Your task to perform on an android device: Open Google Maps and go to "Timeline" Image 0: 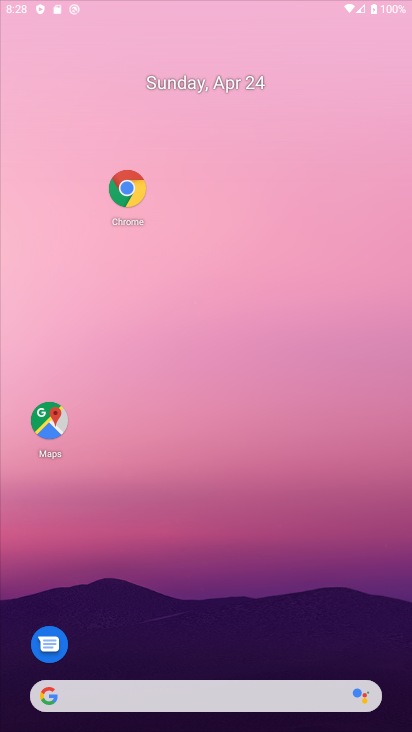
Step 0: click (198, 159)
Your task to perform on an android device: Open Google Maps and go to "Timeline" Image 1: 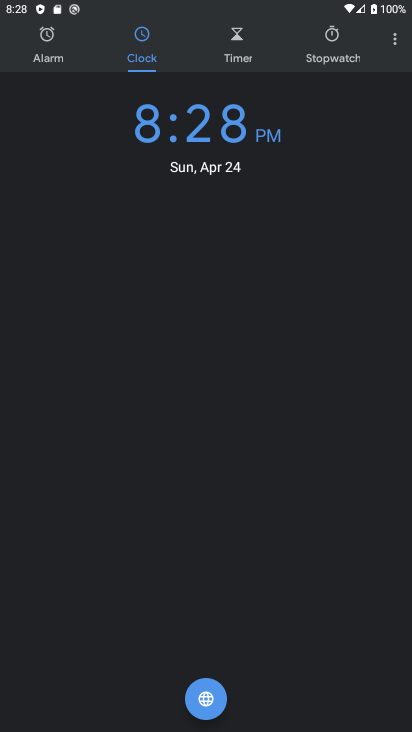
Step 1: press home button
Your task to perform on an android device: Open Google Maps and go to "Timeline" Image 2: 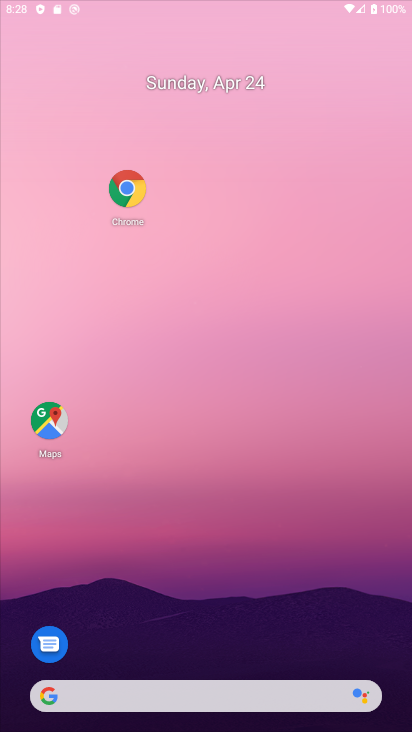
Step 2: drag from (227, 614) to (269, 91)
Your task to perform on an android device: Open Google Maps and go to "Timeline" Image 3: 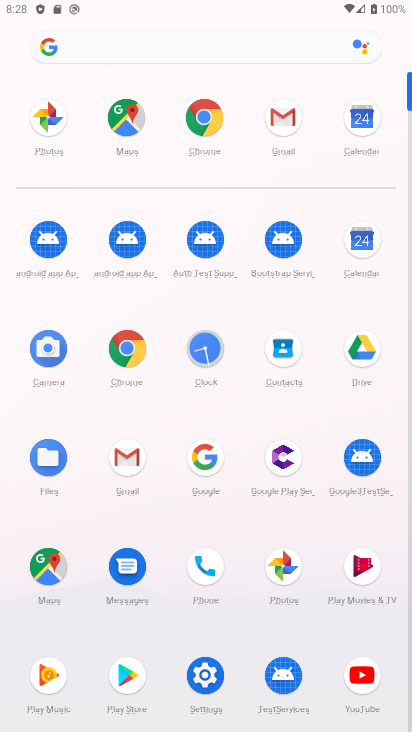
Step 3: click (48, 561)
Your task to perform on an android device: Open Google Maps and go to "Timeline" Image 4: 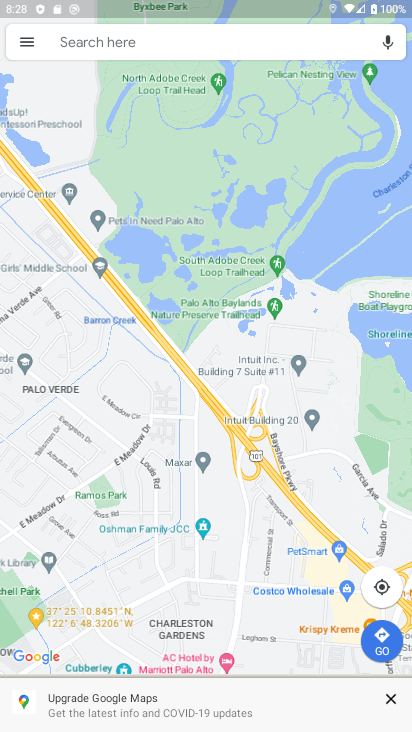
Step 4: click (27, 39)
Your task to perform on an android device: Open Google Maps and go to "Timeline" Image 5: 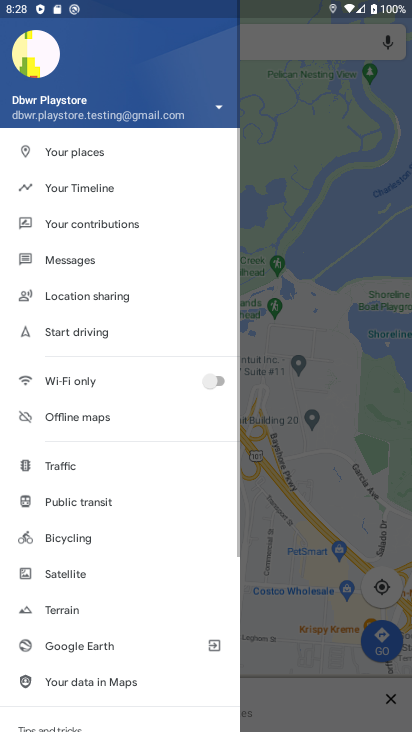
Step 5: click (86, 187)
Your task to perform on an android device: Open Google Maps and go to "Timeline" Image 6: 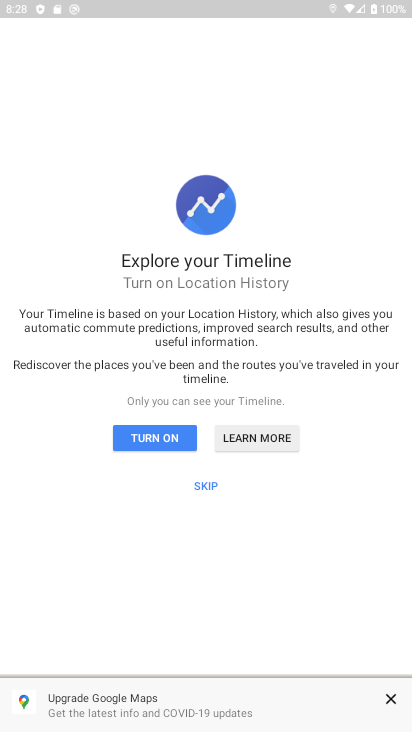
Step 6: click (165, 449)
Your task to perform on an android device: Open Google Maps and go to "Timeline" Image 7: 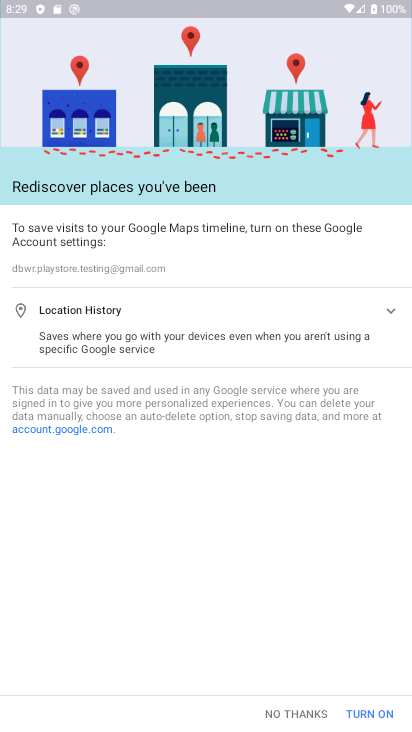
Step 7: click (361, 702)
Your task to perform on an android device: Open Google Maps and go to "Timeline" Image 8: 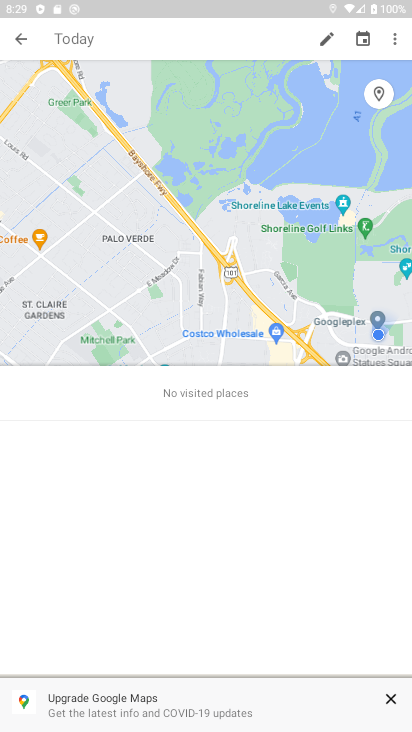
Step 8: task complete